Your task to perform on an android device: create a new album in the google photos Image 0: 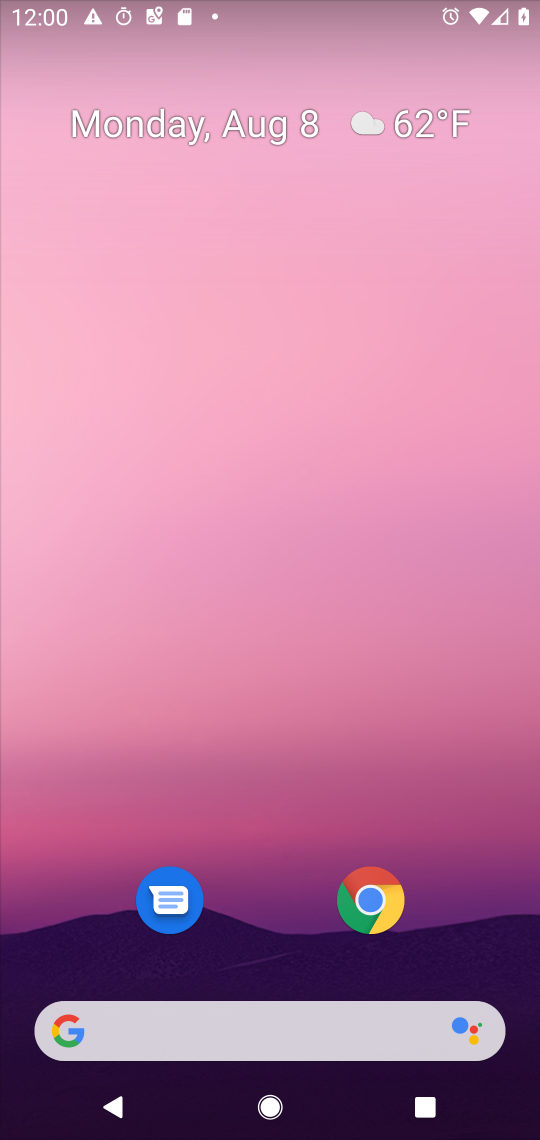
Step 0: press home button
Your task to perform on an android device: create a new album in the google photos Image 1: 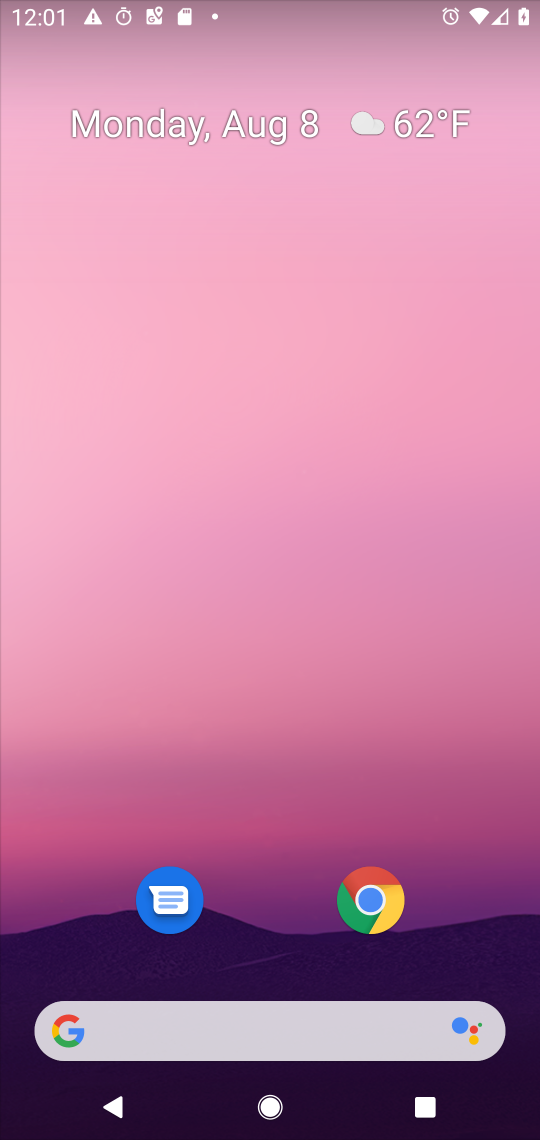
Step 1: drag from (280, 959) to (279, 34)
Your task to perform on an android device: create a new album in the google photos Image 2: 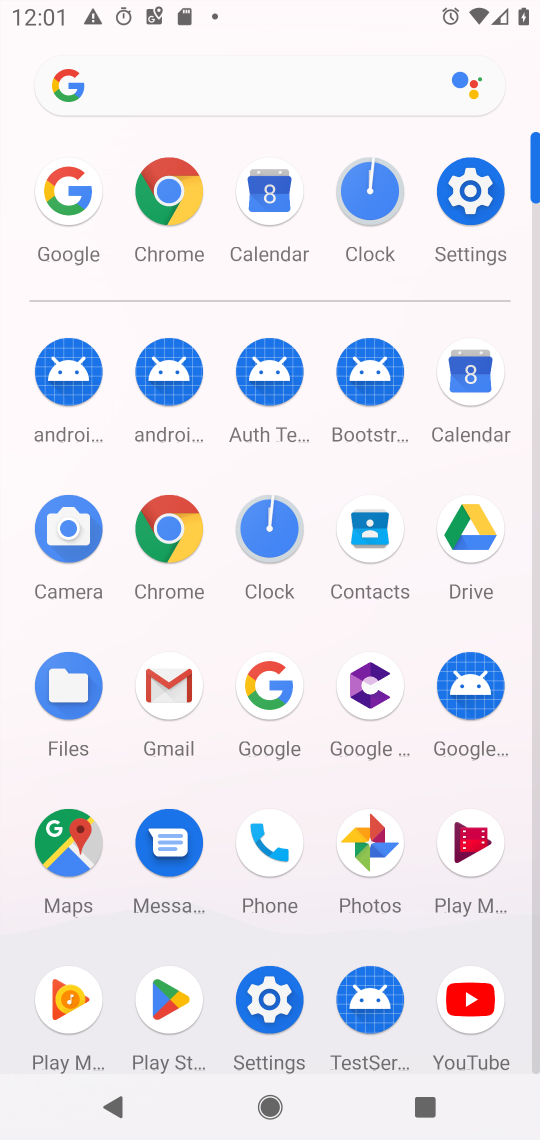
Step 2: click (371, 837)
Your task to perform on an android device: create a new album in the google photos Image 3: 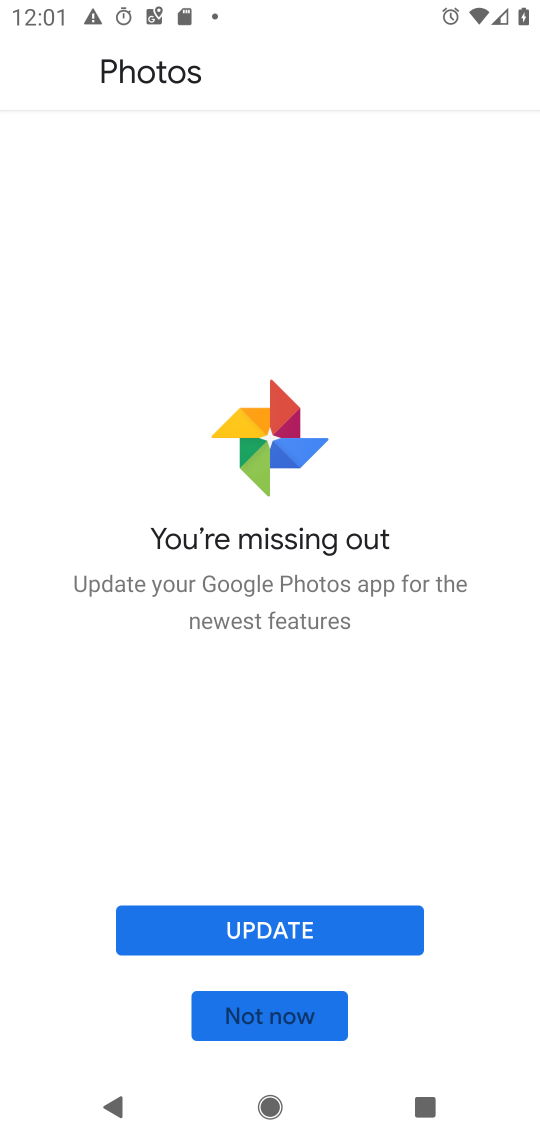
Step 3: click (275, 924)
Your task to perform on an android device: create a new album in the google photos Image 4: 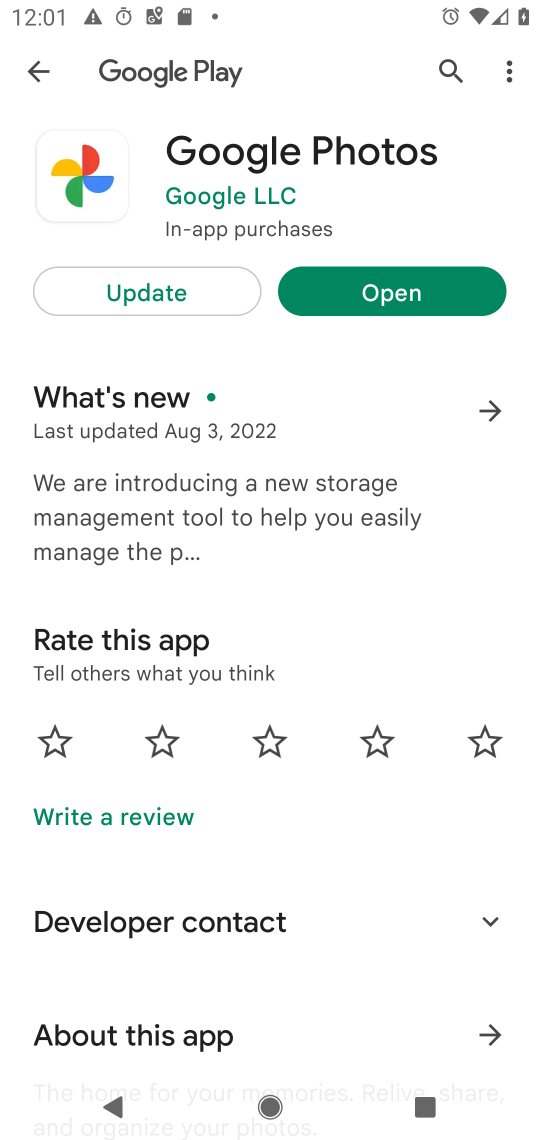
Step 4: click (154, 305)
Your task to perform on an android device: create a new album in the google photos Image 5: 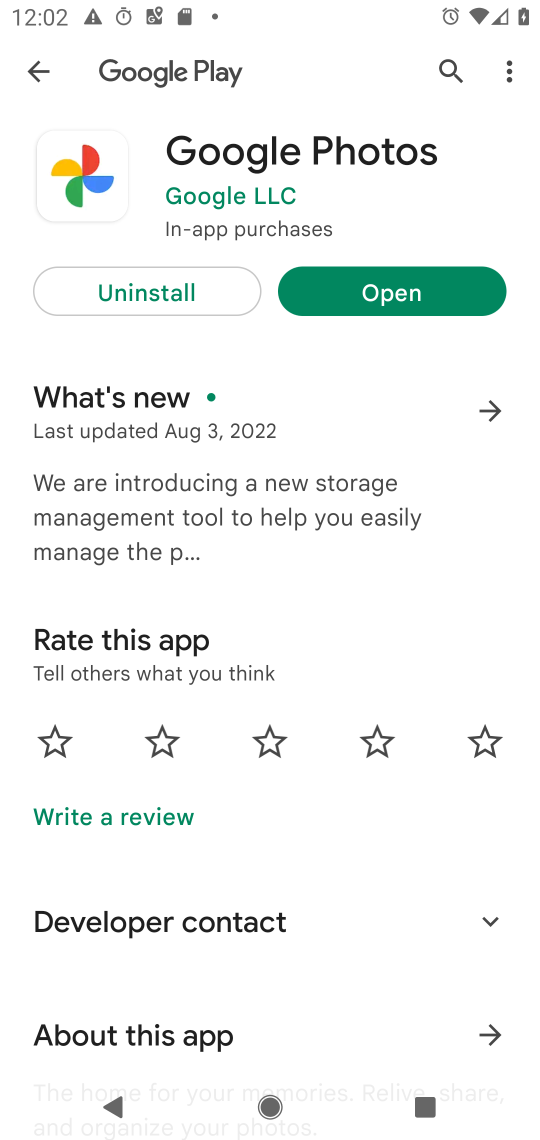
Step 5: click (406, 291)
Your task to perform on an android device: create a new album in the google photos Image 6: 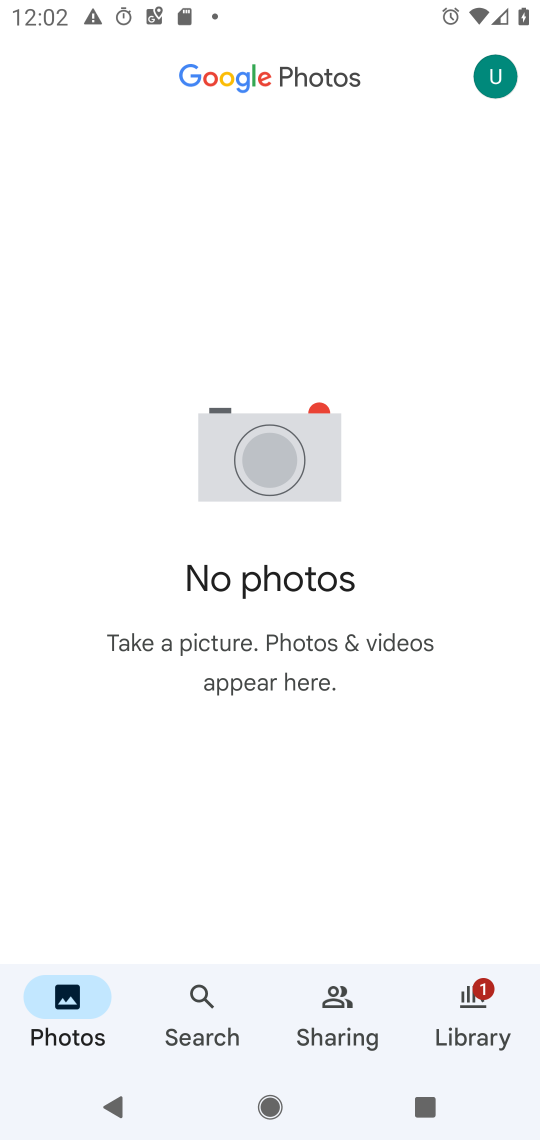
Step 6: click (341, 1001)
Your task to perform on an android device: create a new album in the google photos Image 7: 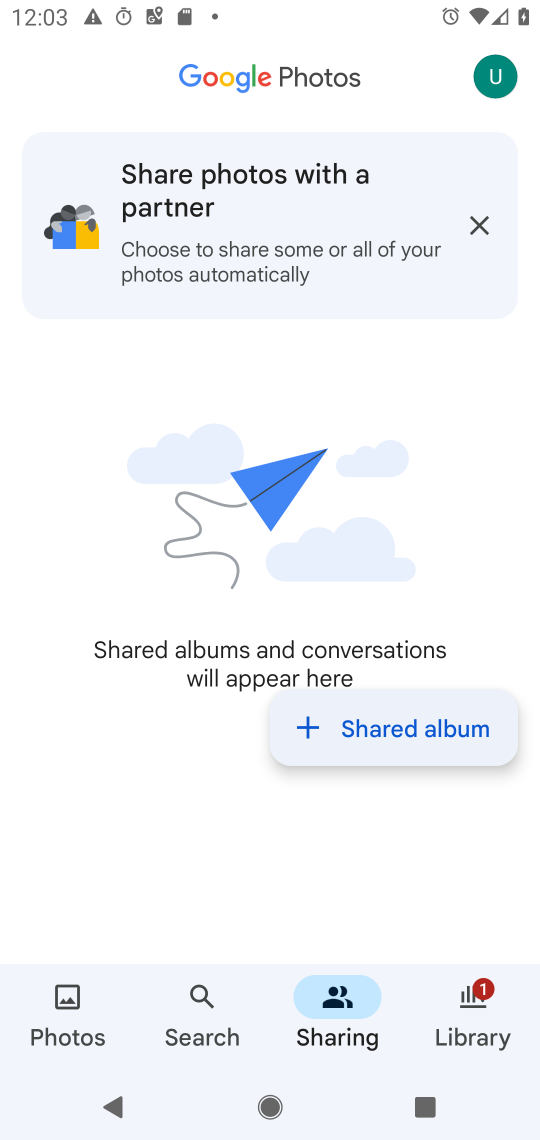
Step 7: click (390, 717)
Your task to perform on an android device: create a new album in the google photos Image 8: 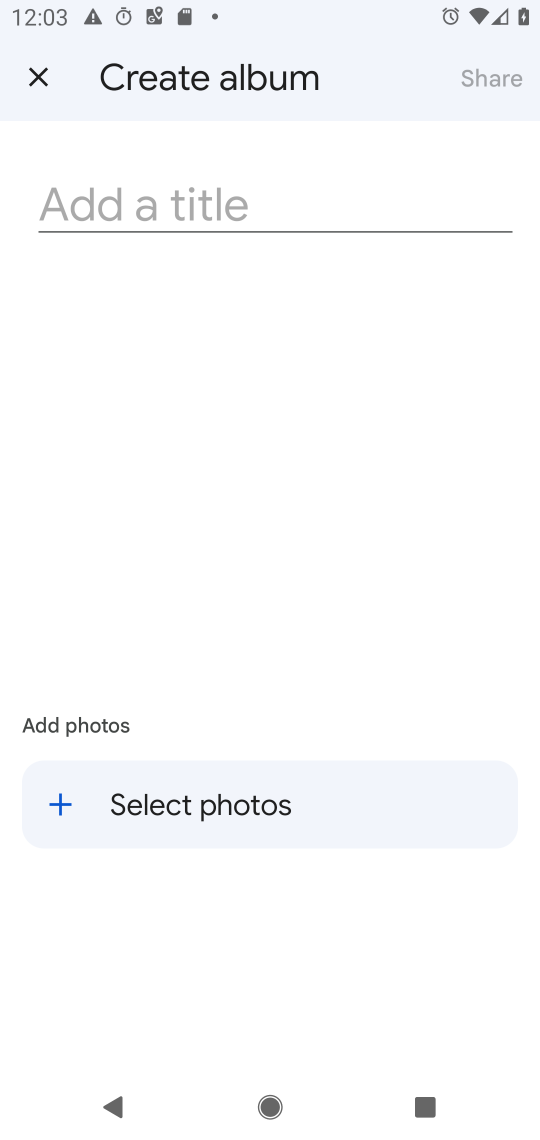
Step 8: click (73, 798)
Your task to perform on an android device: create a new album in the google photos Image 9: 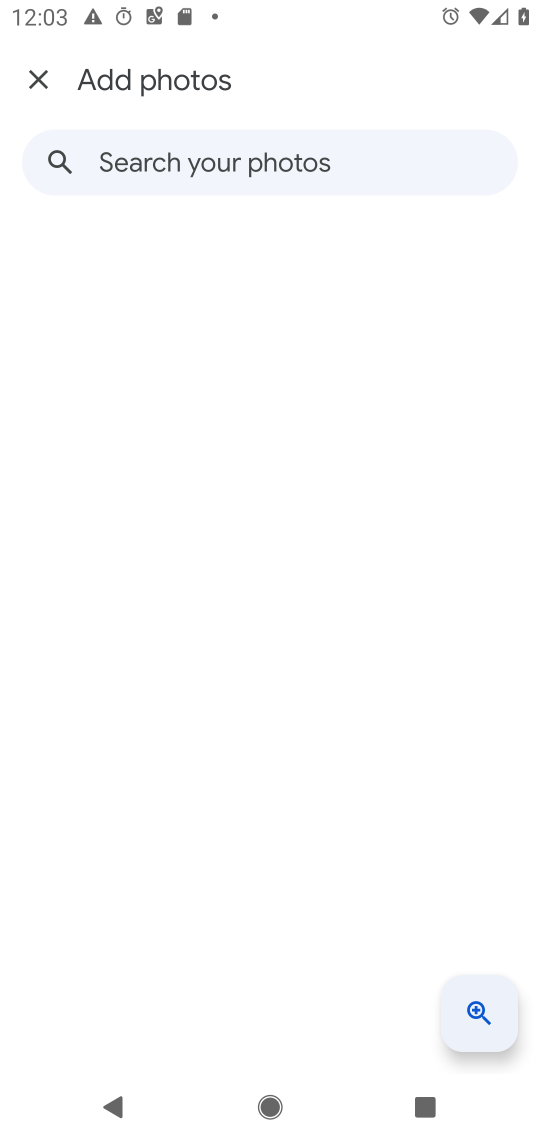
Step 9: task complete